Your task to perform on an android device: What's the weather going to be tomorrow? Image 0: 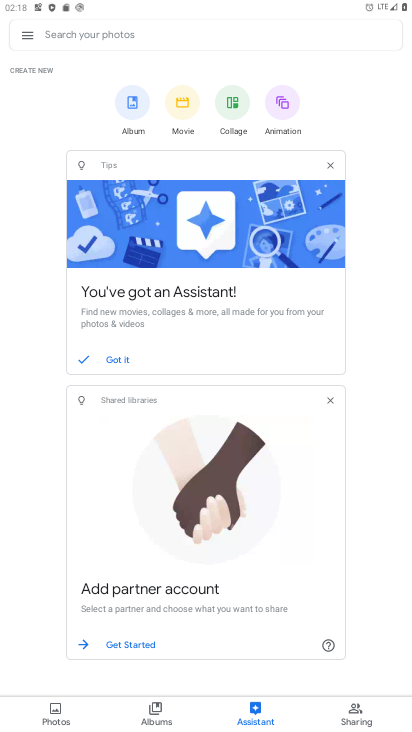
Step 0: press home button
Your task to perform on an android device: What's the weather going to be tomorrow? Image 1: 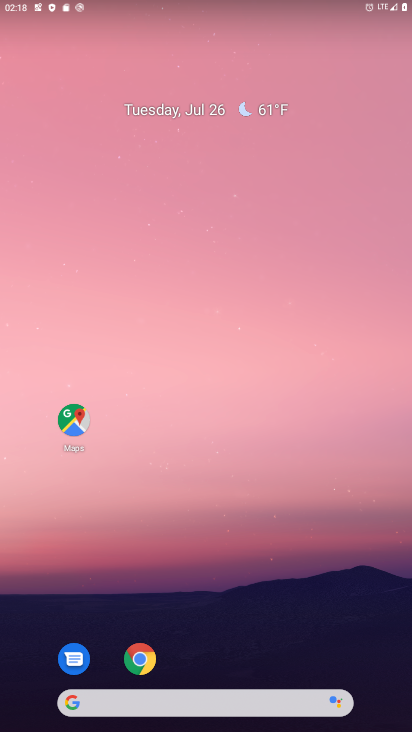
Step 1: drag from (267, 326) to (269, 35)
Your task to perform on an android device: What's the weather going to be tomorrow? Image 2: 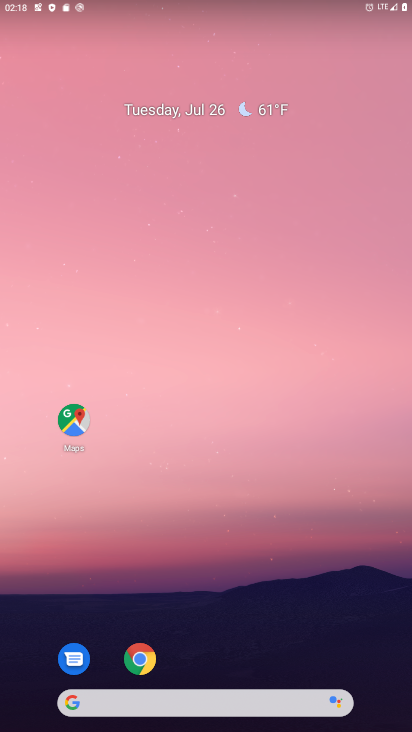
Step 2: drag from (267, 610) to (254, 73)
Your task to perform on an android device: What's the weather going to be tomorrow? Image 3: 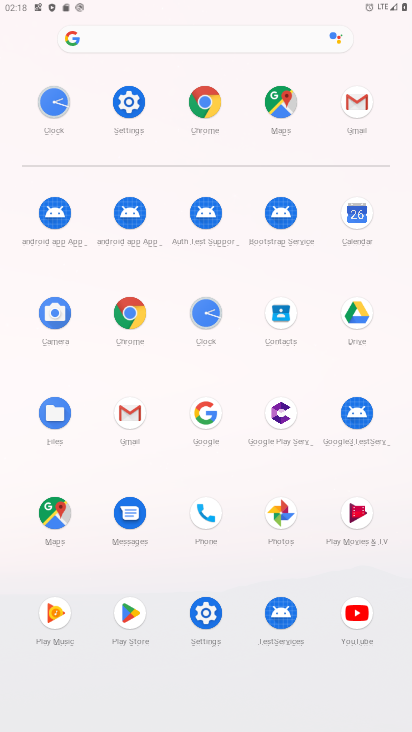
Step 3: click (210, 97)
Your task to perform on an android device: What's the weather going to be tomorrow? Image 4: 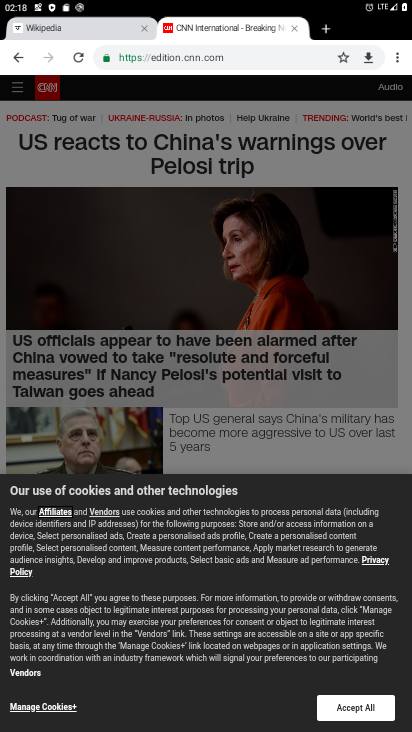
Step 4: click (254, 62)
Your task to perform on an android device: What's the weather going to be tomorrow? Image 5: 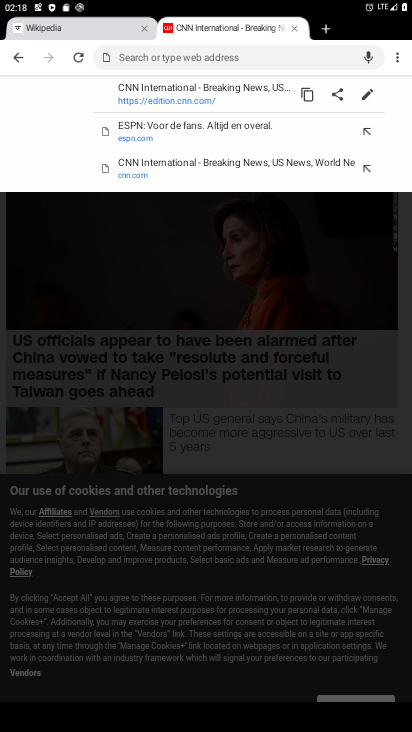
Step 5: type "weather"
Your task to perform on an android device: What's the weather going to be tomorrow? Image 6: 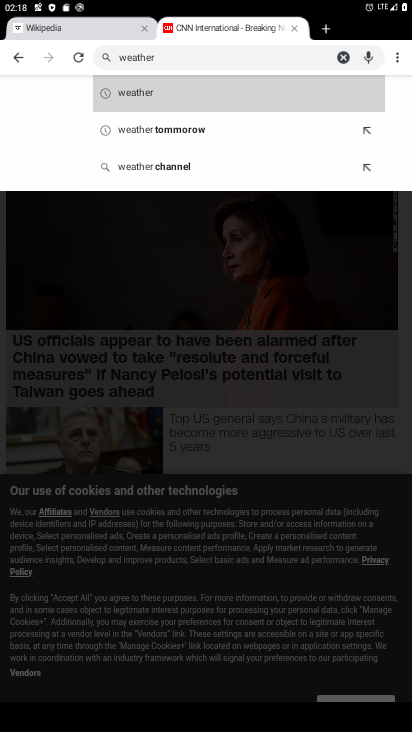
Step 6: click (195, 89)
Your task to perform on an android device: What's the weather going to be tomorrow? Image 7: 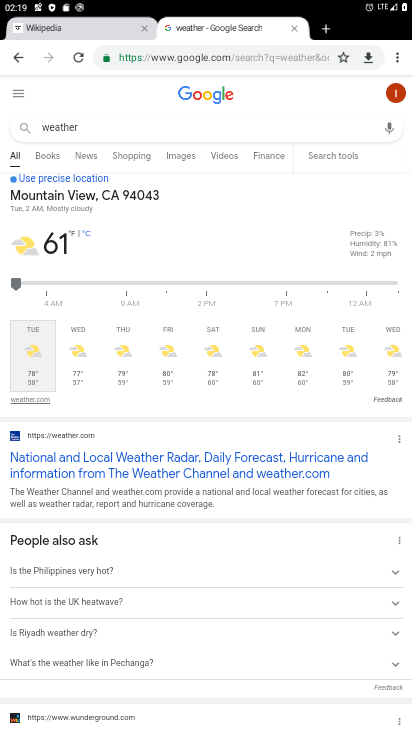
Step 7: click (89, 347)
Your task to perform on an android device: What's the weather going to be tomorrow? Image 8: 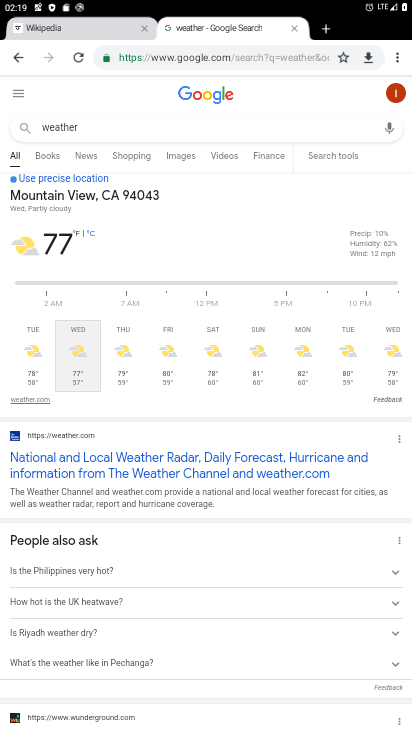
Step 8: task complete